Your task to perform on an android device: Add "bose soundlink mini" to the cart on costco, then select checkout. Image 0: 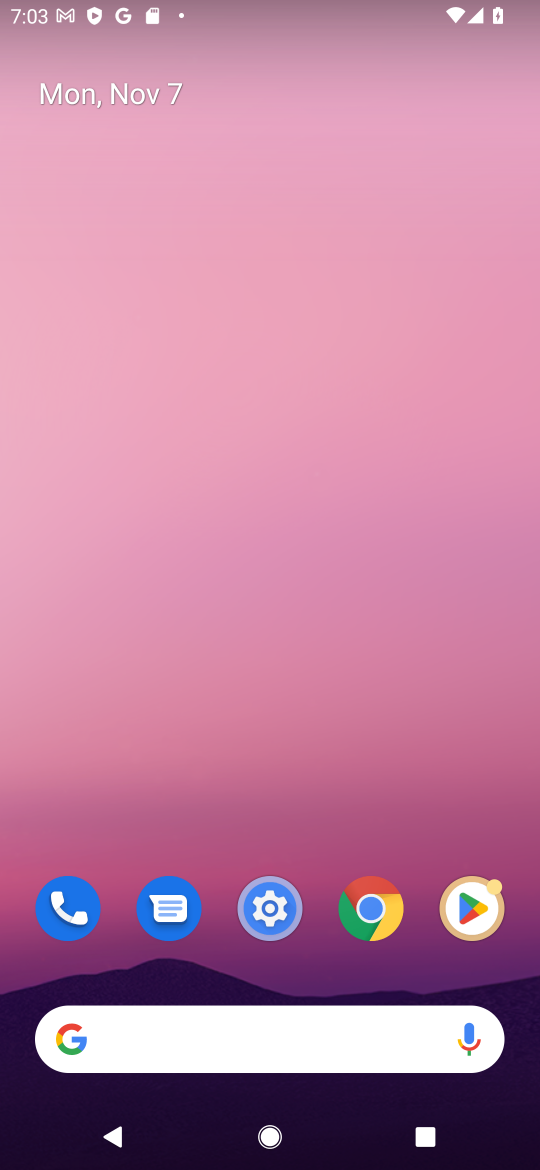
Step 0: click (220, 1029)
Your task to perform on an android device: Add "bose soundlink mini" to the cart on costco, then select checkout. Image 1: 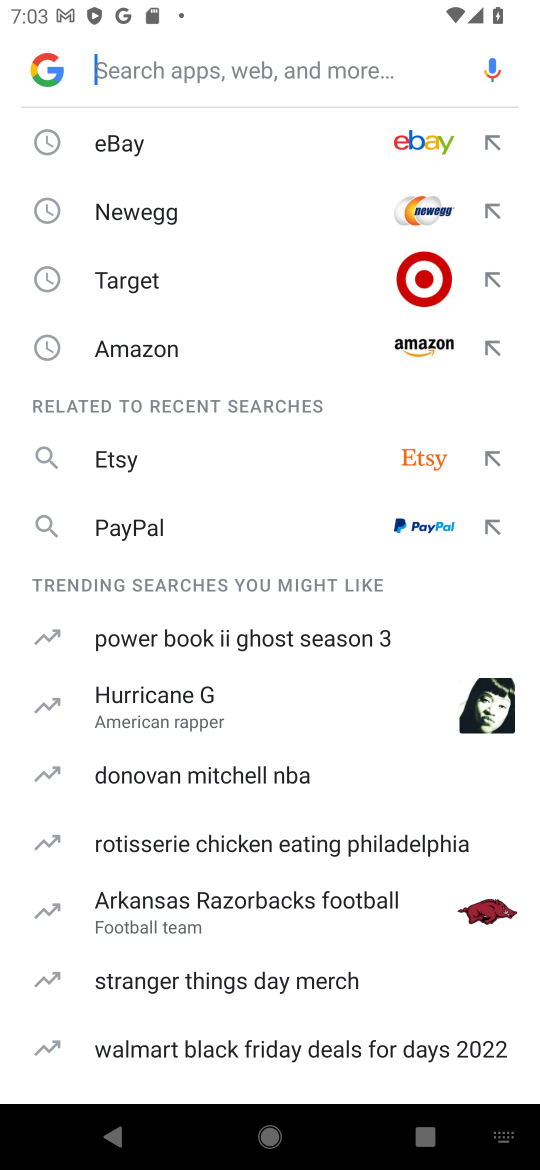
Step 1: type "costco"
Your task to perform on an android device: Add "bose soundlink mini" to the cart on costco, then select checkout. Image 2: 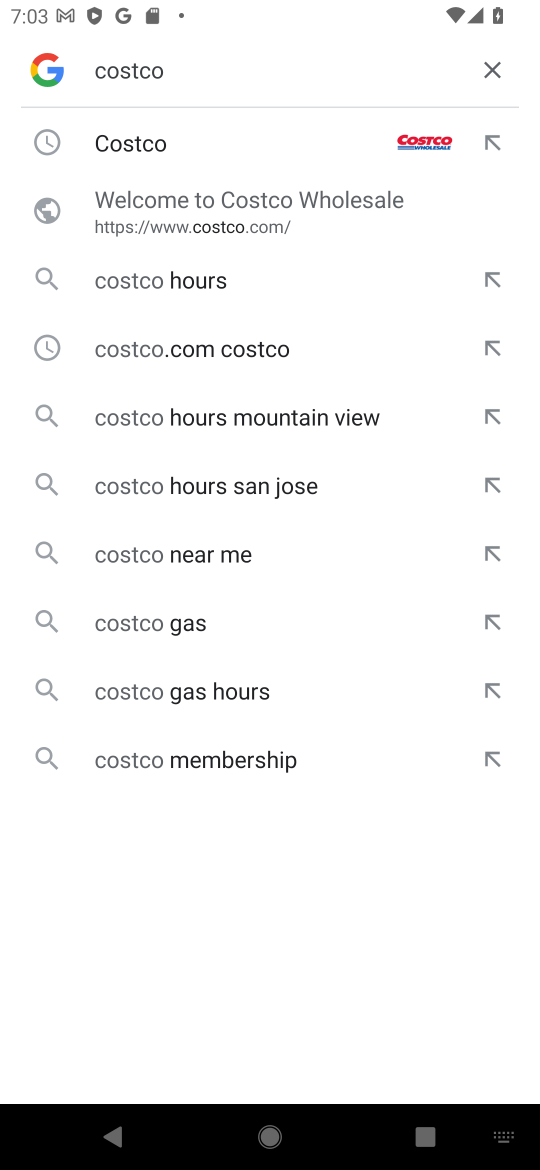
Step 2: click (123, 164)
Your task to perform on an android device: Add "bose soundlink mini" to the cart on costco, then select checkout. Image 3: 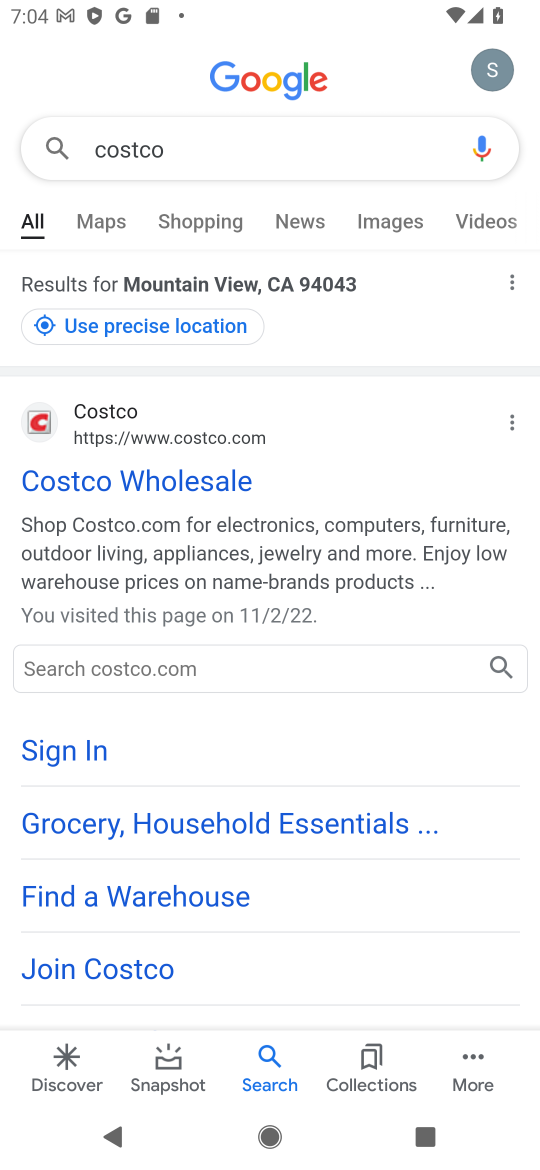
Step 3: click (221, 479)
Your task to perform on an android device: Add "bose soundlink mini" to the cart on costco, then select checkout. Image 4: 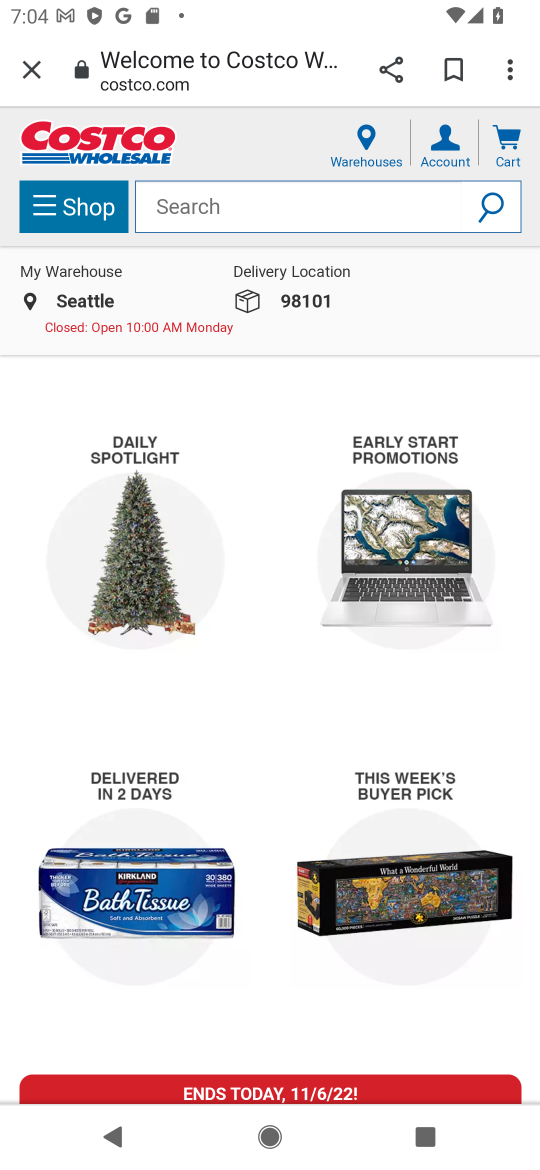
Step 4: task complete